Your task to perform on an android device: turn on bluetooth scan Image 0: 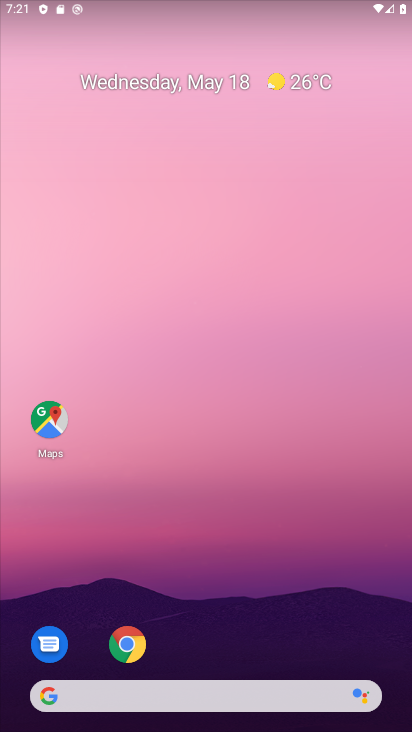
Step 0: click (362, 359)
Your task to perform on an android device: turn on bluetooth scan Image 1: 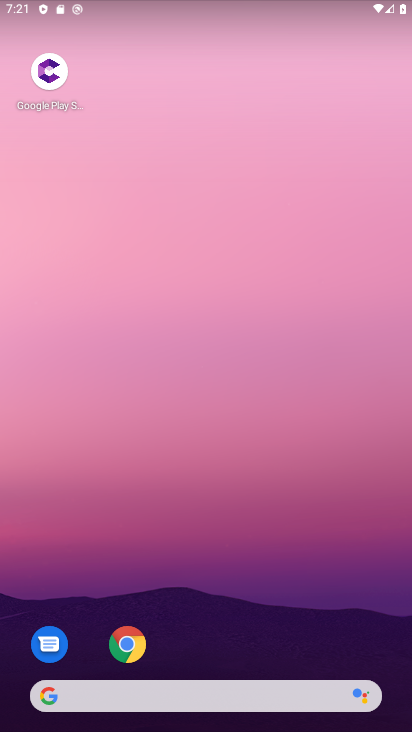
Step 1: drag from (355, 501) to (337, 390)
Your task to perform on an android device: turn on bluetooth scan Image 2: 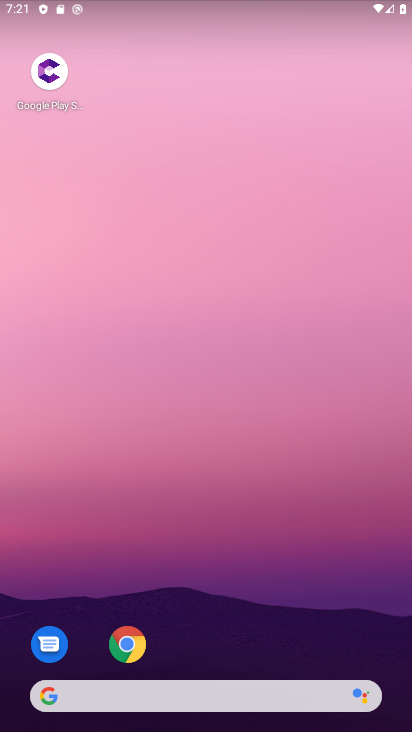
Step 2: drag from (393, 707) to (350, 309)
Your task to perform on an android device: turn on bluetooth scan Image 3: 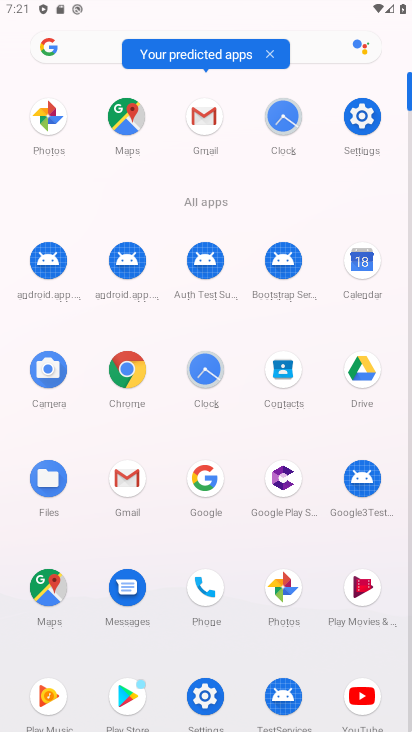
Step 3: click (361, 114)
Your task to perform on an android device: turn on bluetooth scan Image 4: 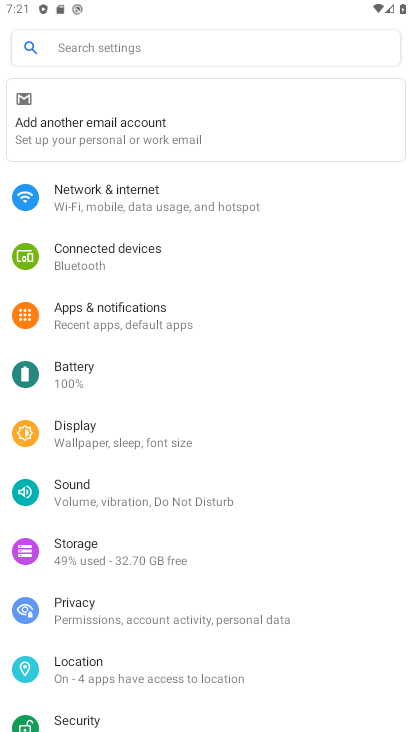
Step 4: click (66, 672)
Your task to perform on an android device: turn on bluetooth scan Image 5: 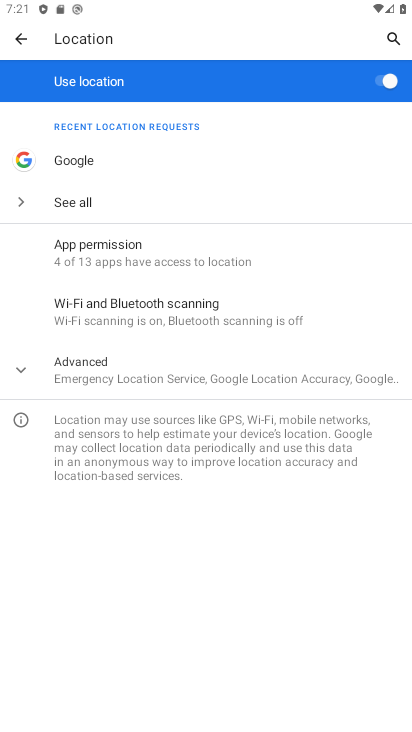
Step 5: click (146, 267)
Your task to perform on an android device: turn on bluetooth scan Image 6: 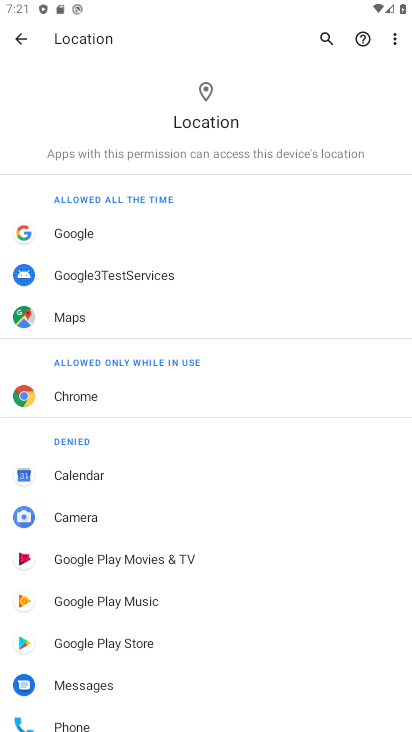
Step 6: drag from (271, 659) to (229, 373)
Your task to perform on an android device: turn on bluetooth scan Image 7: 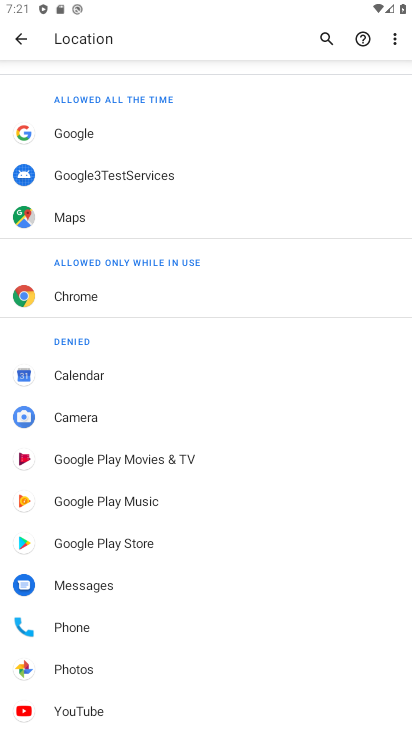
Step 7: drag from (228, 671) to (214, 486)
Your task to perform on an android device: turn on bluetooth scan Image 8: 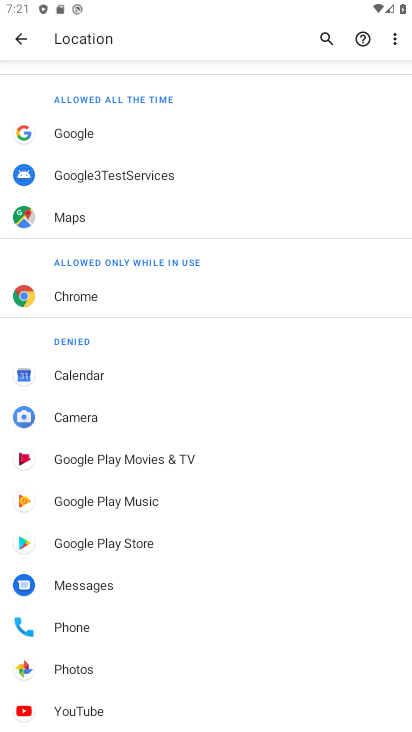
Step 8: click (19, 34)
Your task to perform on an android device: turn on bluetooth scan Image 9: 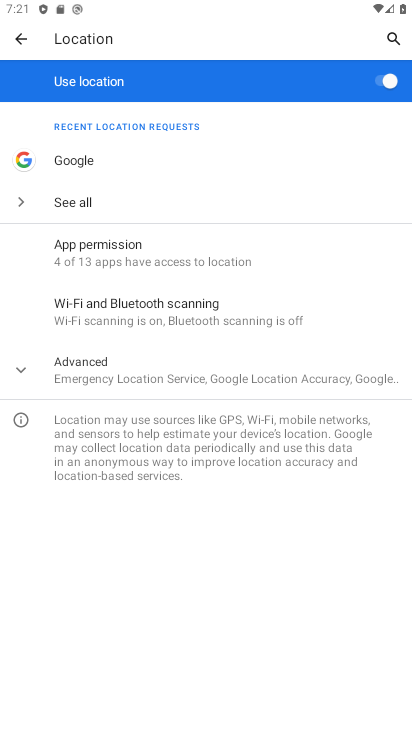
Step 9: click (147, 311)
Your task to perform on an android device: turn on bluetooth scan Image 10: 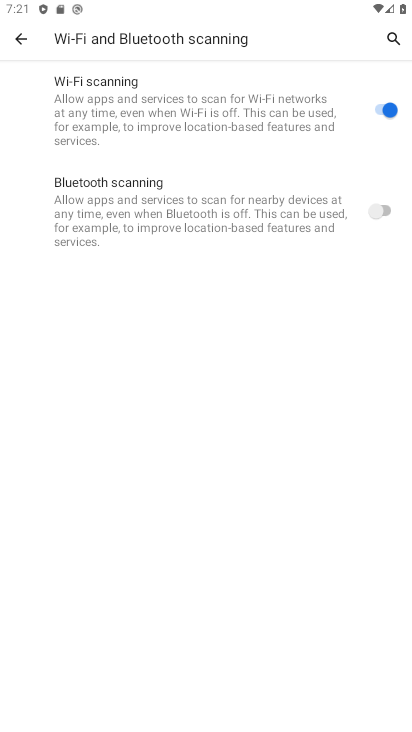
Step 10: click (383, 209)
Your task to perform on an android device: turn on bluetooth scan Image 11: 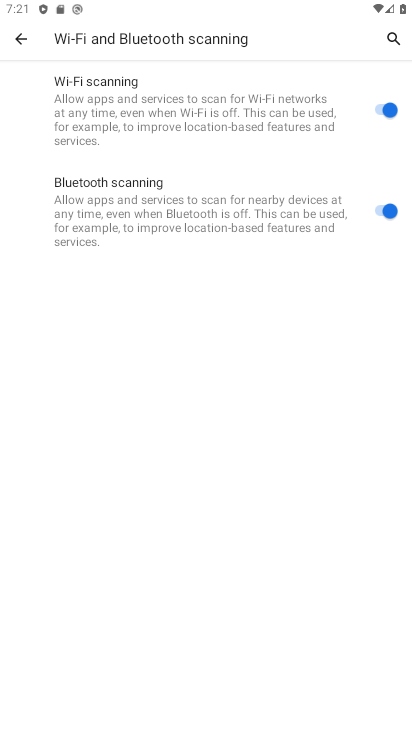
Step 11: task complete